Your task to perform on an android device: move a message to another label in the gmail app Image 0: 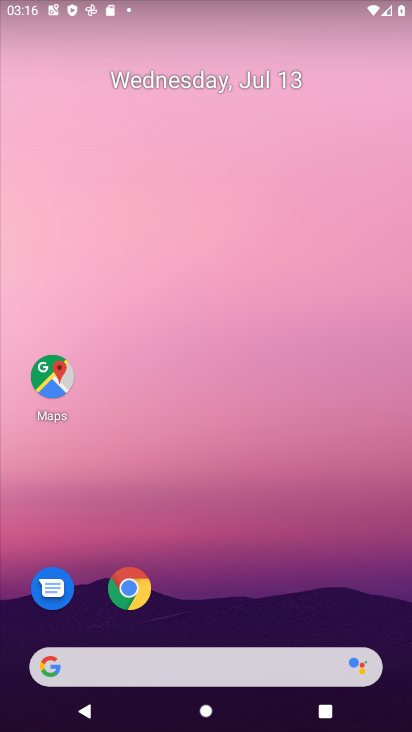
Step 0: drag from (404, 678) to (299, 170)
Your task to perform on an android device: move a message to another label in the gmail app Image 1: 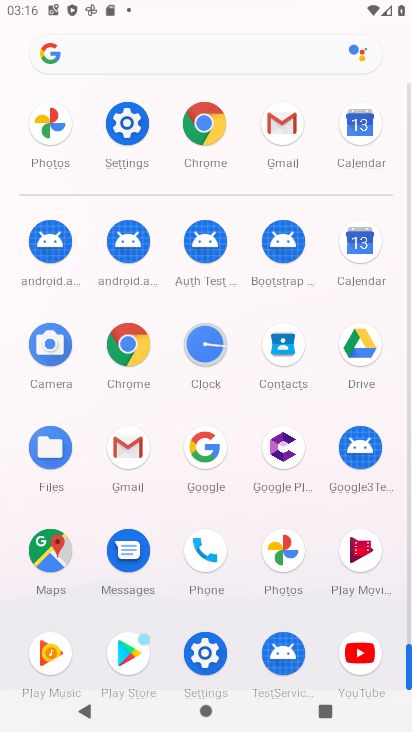
Step 1: click (141, 450)
Your task to perform on an android device: move a message to another label in the gmail app Image 2: 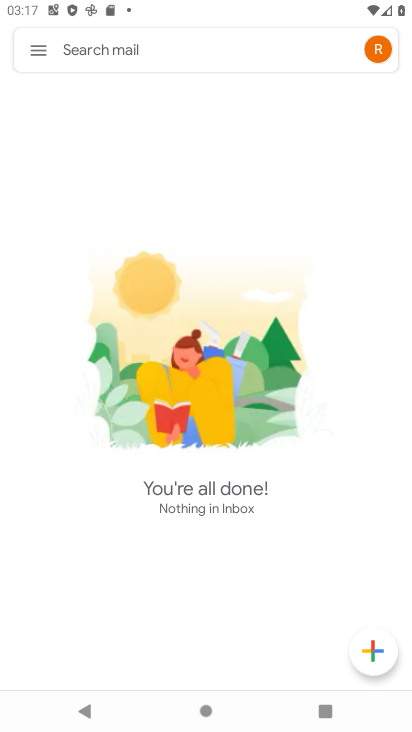
Step 2: click (42, 54)
Your task to perform on an android device: move a message to another label in the gmail app Image 3: 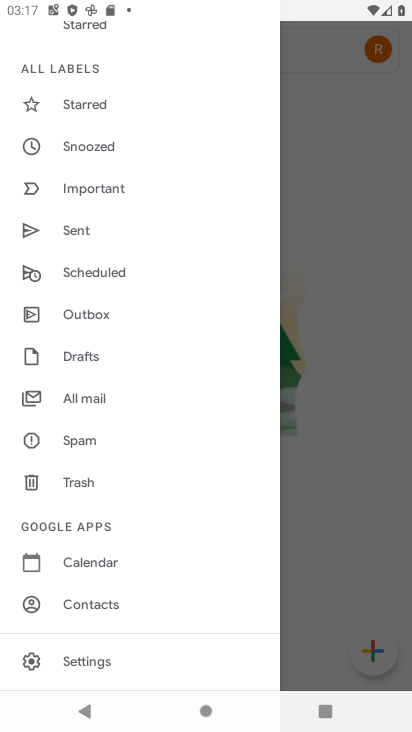
Step 3: click (327, 402)
Your task to perform on an android device: move a message to another label in the gmail app Image 4: 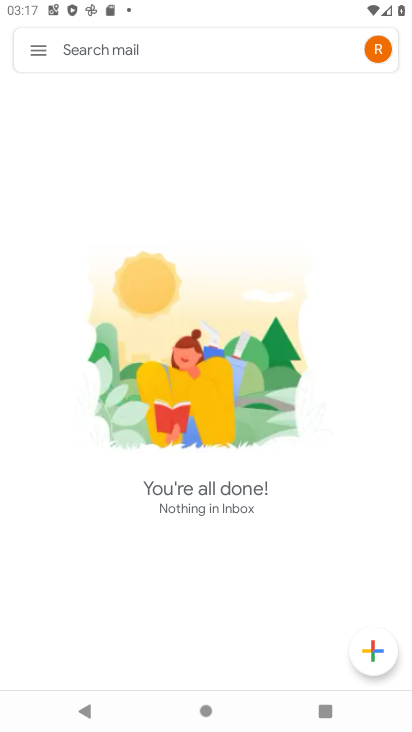
Step 4: task complete